Your task to perform on an android device: Add razer thresher to the cart on ebay.com Image 0: 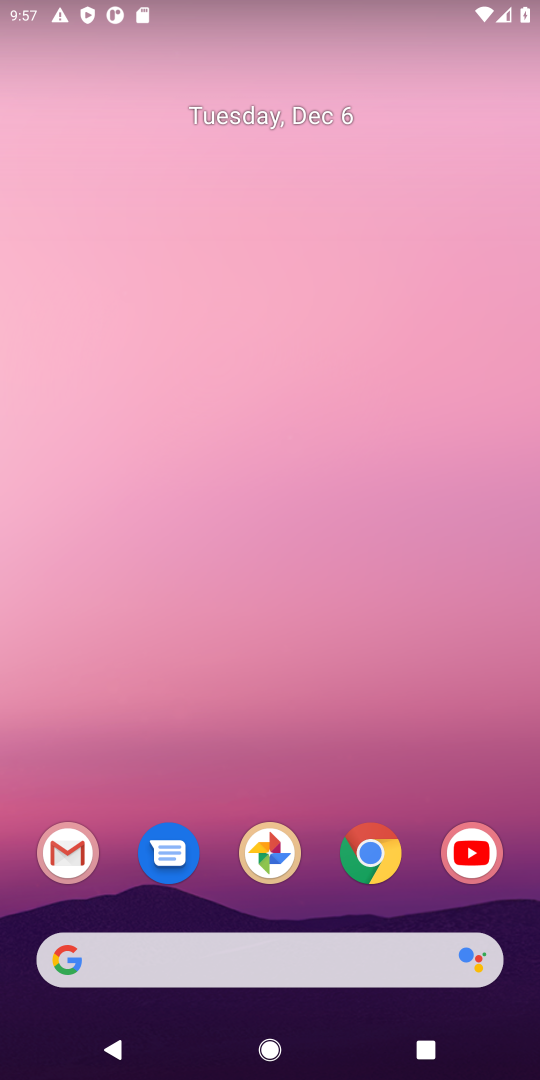
Step 0: task complete